Your task to perform on an android device: change the clock display to analog Image 0: 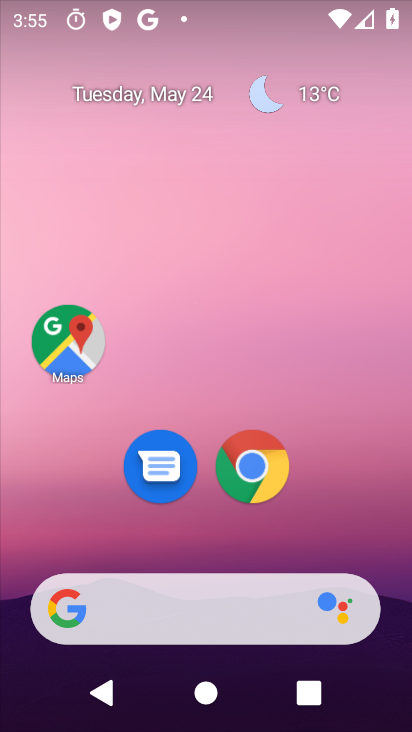
Step 0: drag from (339, 489) to (299, 126)
Your task to perform on an android device: change the clock display to analog Image 1: 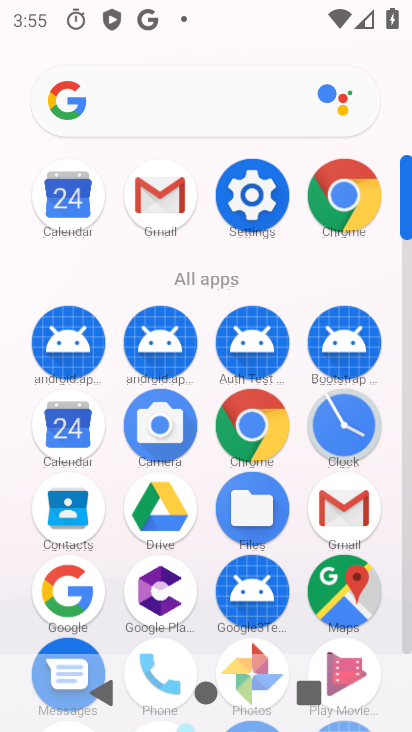
Step 1: click (345, 424)
Your task to perform on an android device: change the clock display to analog Image 2: 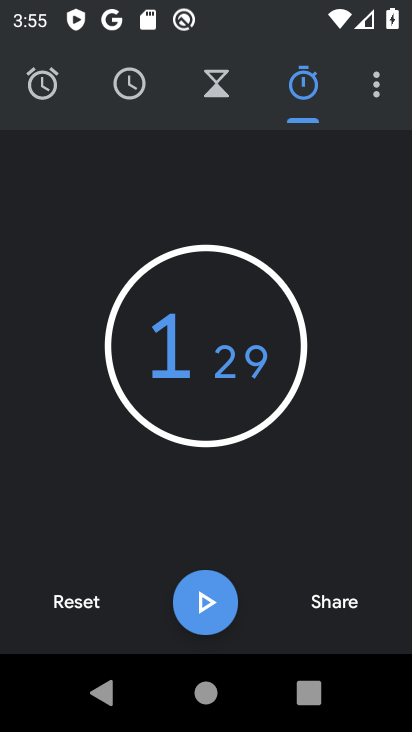
Step 2: click (377, 86)
Your task to perform on an android device: change the clock display to analog Image 3: 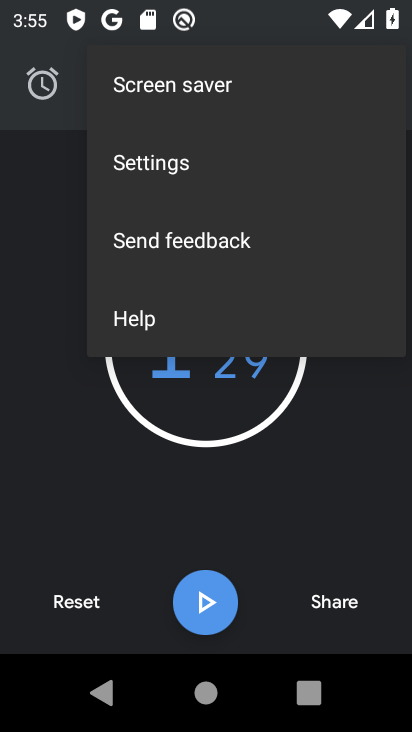
Step 3: click (151, 150)
Your task to perform on an android device: change the clock display to analog Image 4: 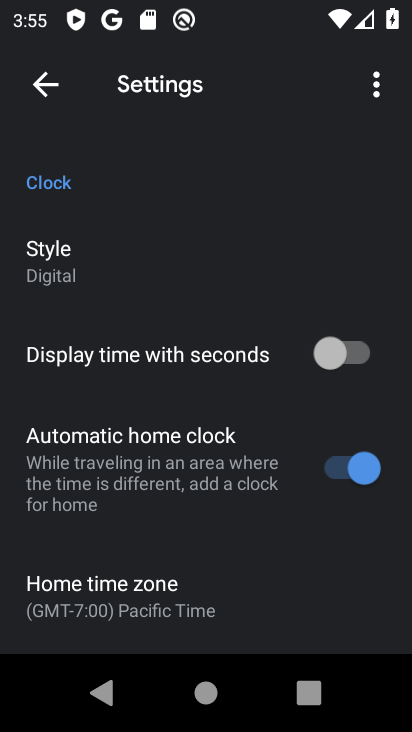
Step 4: click (50, 255)
Your task to perform on an android device: change the clock display to analog Image 5: 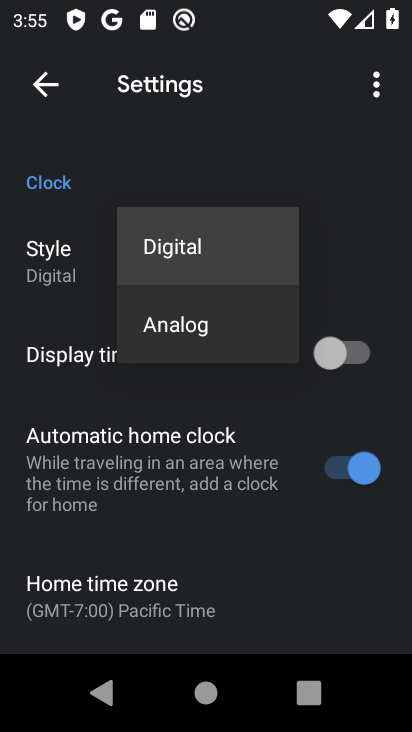
Step 5: click (214, 324)
Your task to perform on an android device: change the clock display to analog Image 6: 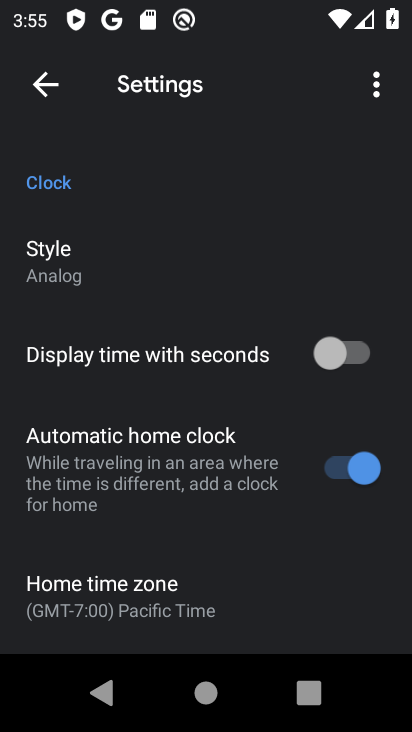
Step 6: task complete